Your task to perform on an android device: star an email in the gmail app Image 0: 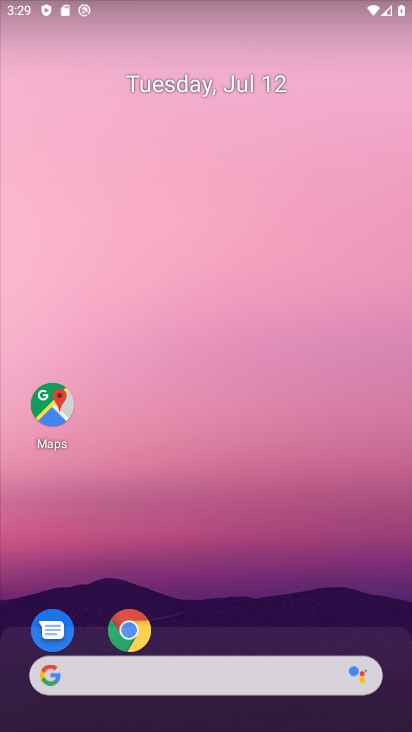
Step 0: drag from (218, 593) to (173, 117)
Your task to perform on an android device: star an email in the gmail app Image 1: 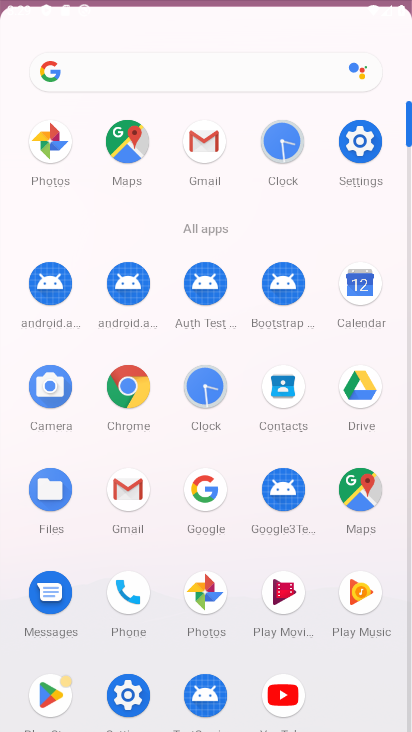
Step 1: drag from (295, 591) to (151, 20)
Your task to perform on an android device: star an email in the gmail app Image 2: 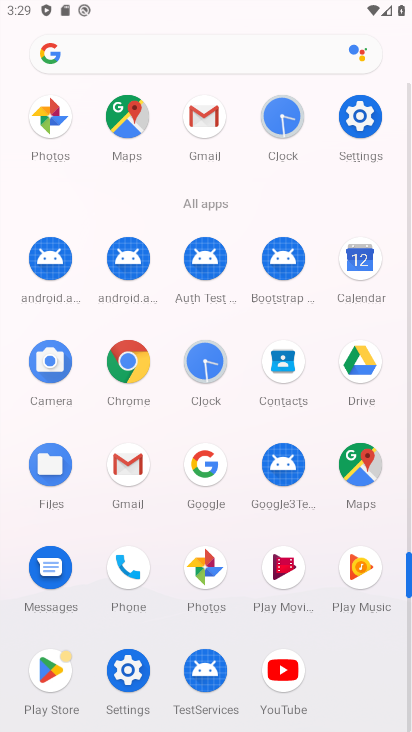
Step 2: click (110, 460)
Your task to perform on an android device: star an email in the gmail app Image 3: 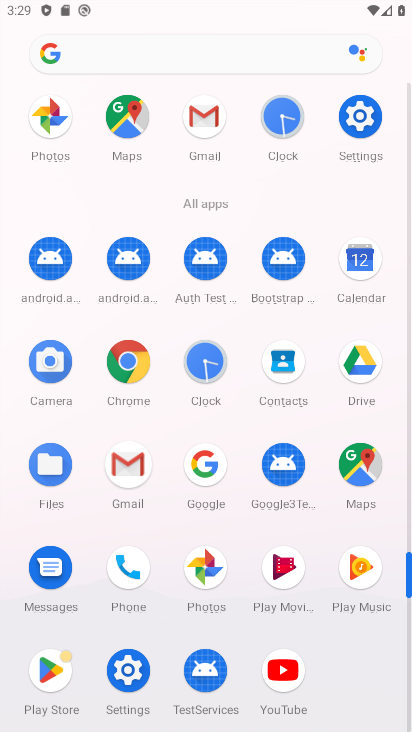
Step 3: click (118, 463)
Your task to perform on an android device: star an email in the gmail app Image 4: 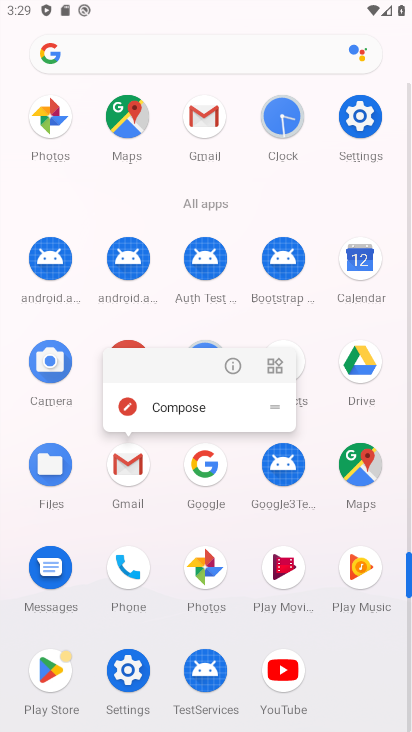
Step 4: click (124, 462)
Your task to perform on an android device: star an email in the gmail app Image 5: 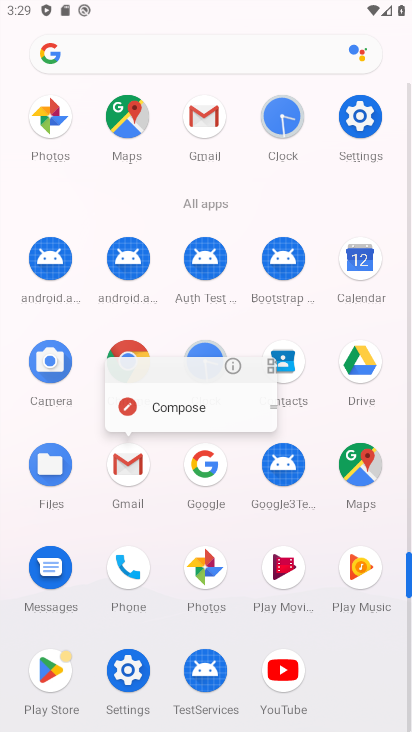
Step 5: click (124, 462)
Your task to perform on an android device: star an email in the gmail app Image 6: 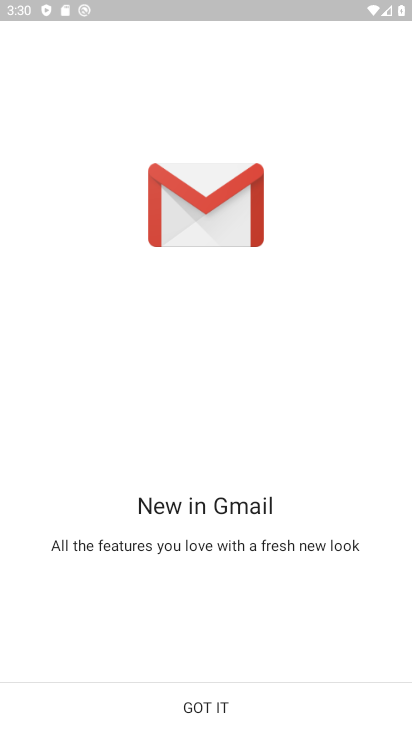
Step 6: click (215, 724)
Your task to perform on an android device: star an email in the gmail app Image 7: 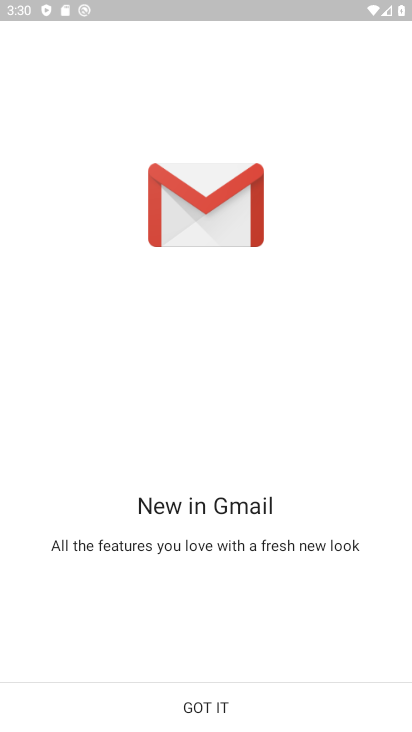
Step 7: click (219, 718)
Your task to perform on an android device: star an email in the gmail app Image 8: 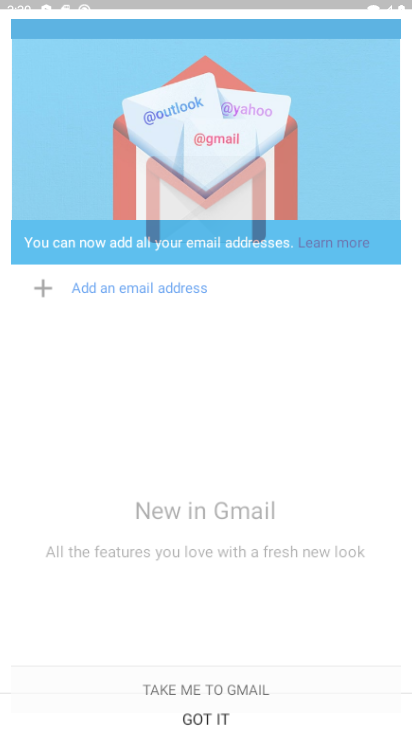
Step 8: click (219, 717)
Your task to perform on an android device: star an email in the gmail app Image 9: 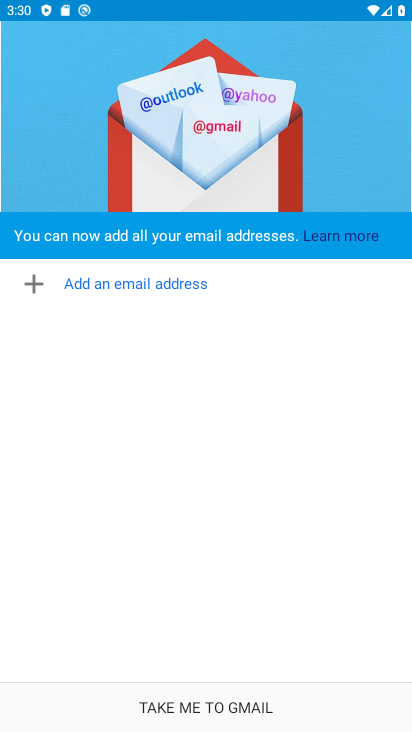
Step 9: click (226, 700)
Your task to perform on an android device: star an email in the gmail app Image 10: 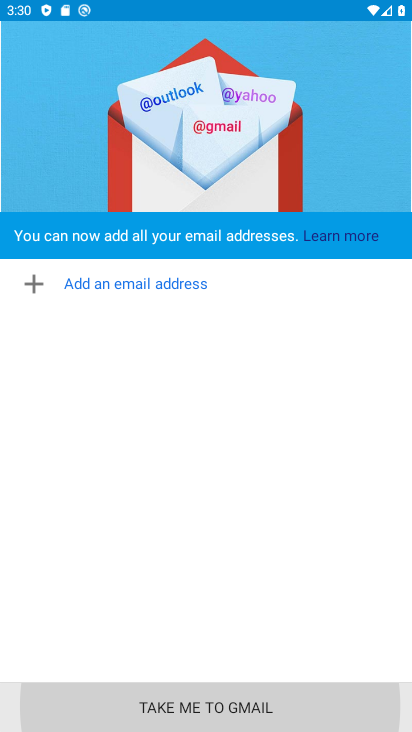
Step 10: click (226, 701)
Your task to perform on an android device: star an email in the gmail app Image 11: 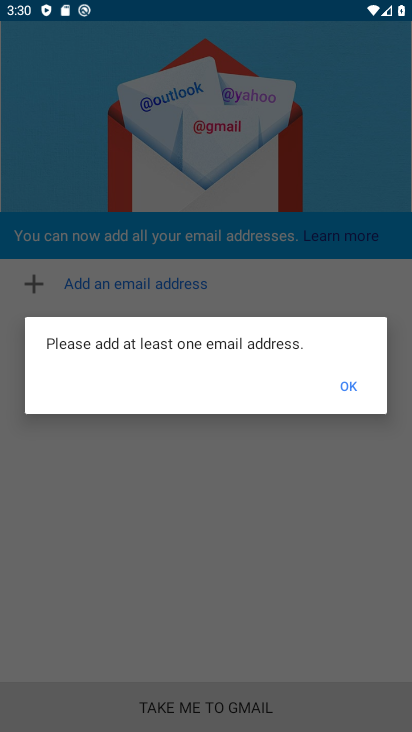
Step 11: click (214, 704)
Your task to perform on an android device: star an email in the gmail app Image 12: 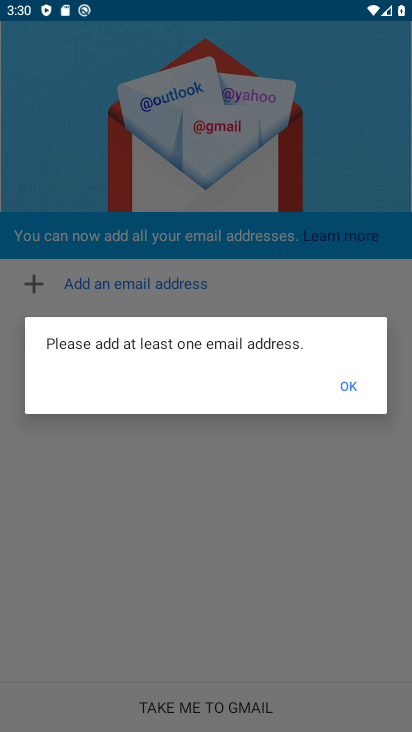
Step 12: click (214, 693)
Your task to perform on an android device: star an email in the gmail app Image 13: 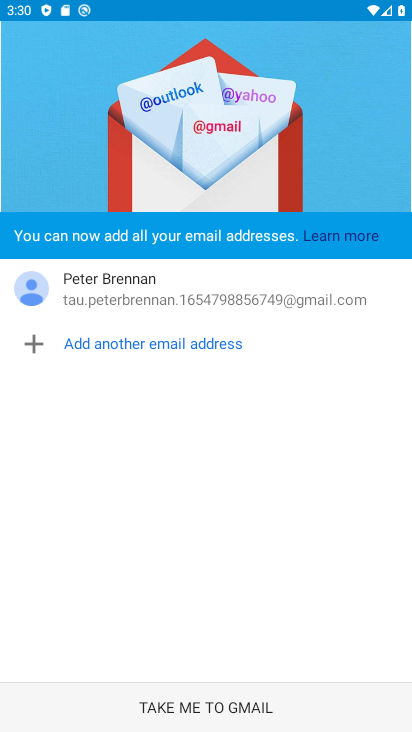
Step 13: click (190, 707)
Your task to perform on an android device: star an email in the gmail app Image 14: 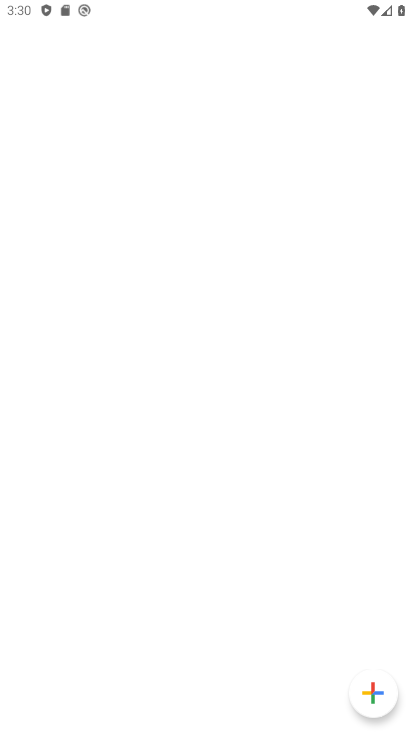
Step 14: click (208, 706)
Your task to perform on an android device: star an email in the gmail app Image 15: 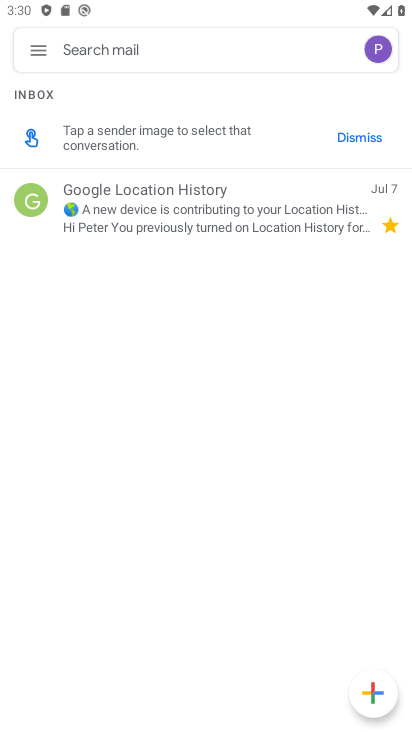
Step 15: click (210, 217)
Your task to perform on an android device: star an email in the gmail app Image 16: 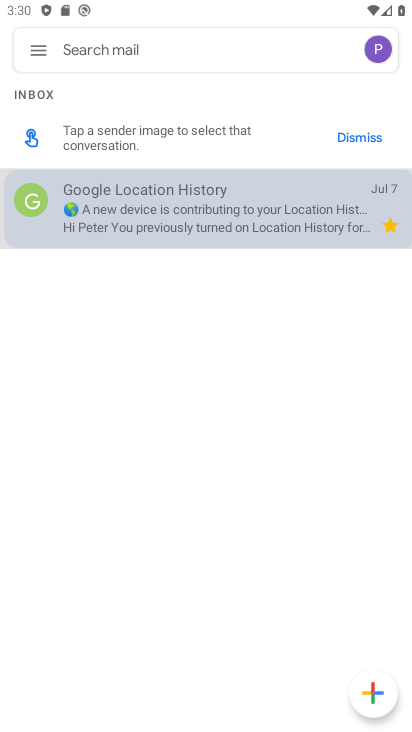
Step 16: click (210, 217)
Your task to perform on an android device: star an email in the gmail app Image 17: 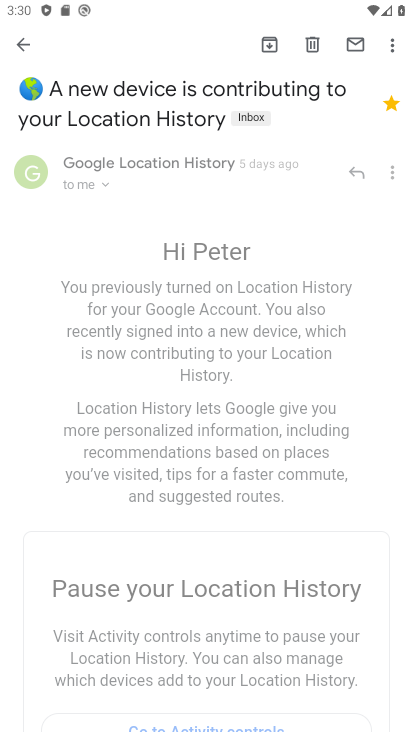
Step 17: click (17, 38)
Your task to perform on an android device: star an email in the gmail app Image 18: 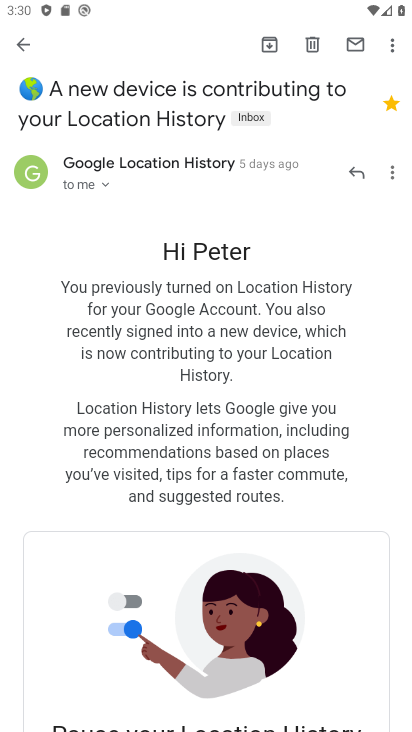
Step 18: click (18, 46)
Your task to perform on an android device: star an email in the gmail app Image 19: 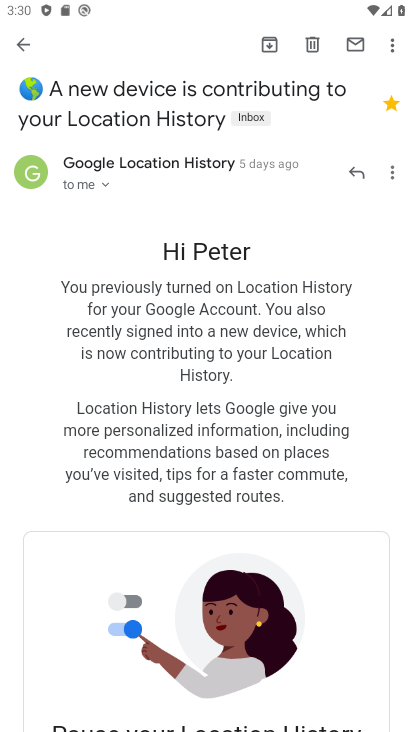
Step 19: click (18, 46)
Your task to perform on an android device: star an email in the gmail app Image 20: 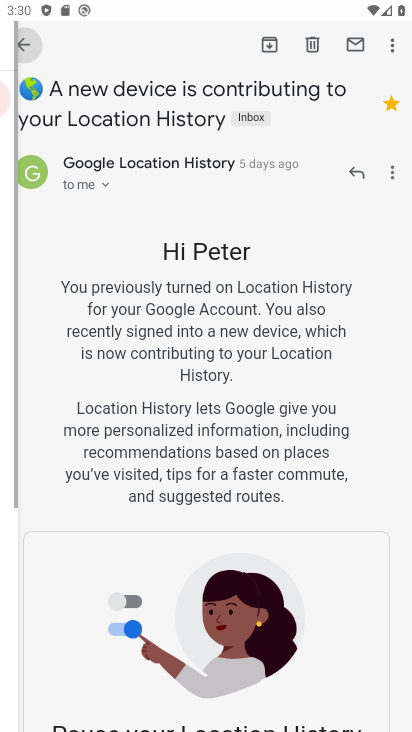
Step 20: click (18, 46)
Your task to perform on an android device: star an email in the gmail app Image 21: 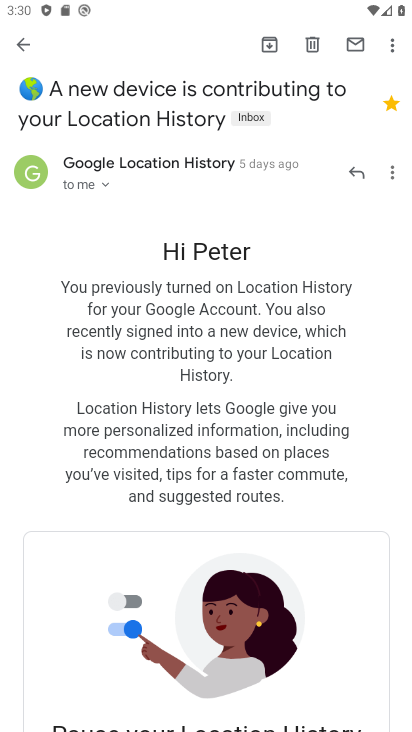
Step 21: click (18, 46)
Your task to perform on an android device: star an email in the gmail app Image 22: 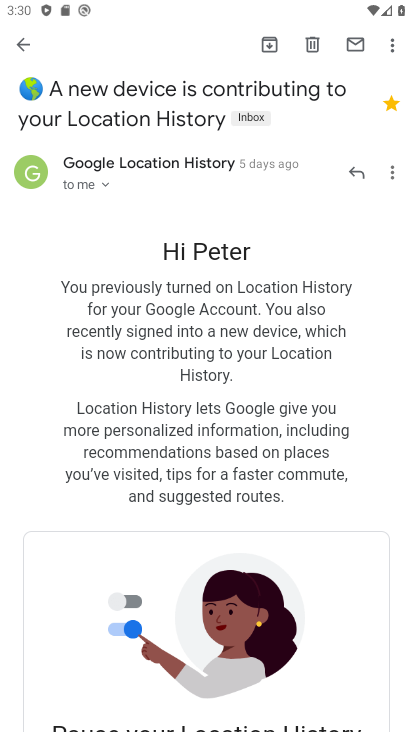
Step 22: click (18, 46)
Your task to perform on an android device: star an email in the gmail app Image 23: 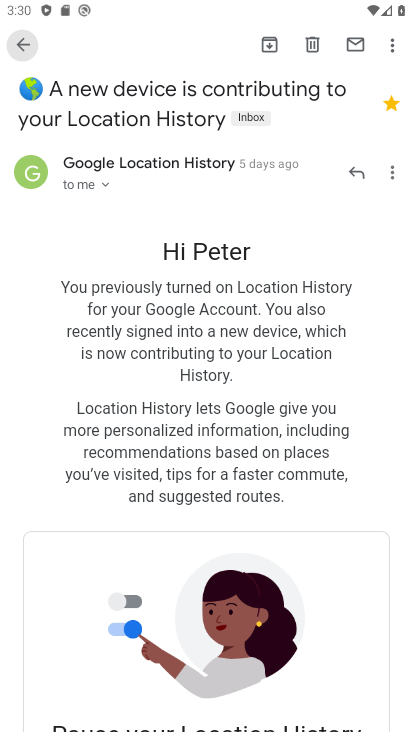
Step 23: click (18, 46)
Your task to perform on an android device: star an email in the gmail app Image 24: 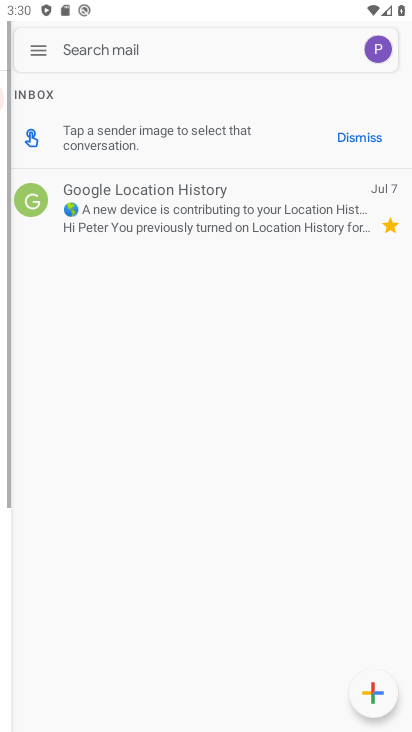
Step 24: click (17, 45)
Your task to perform on an android device: star an email in the gmail app Image 25: 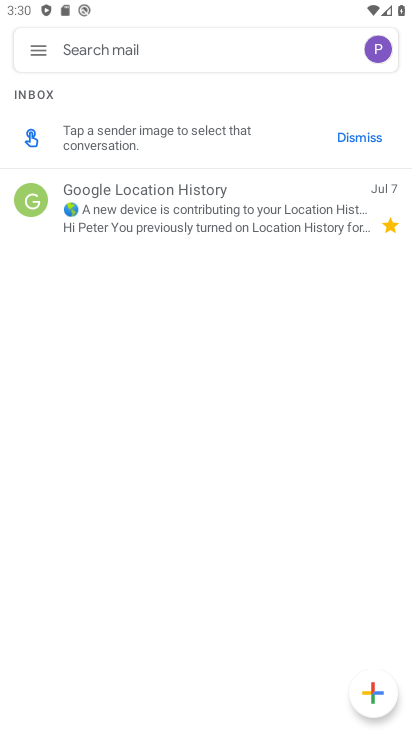
Step 25: click (42, 52)
Your task to perform on an android device: star an email in the gmail app Image 26: 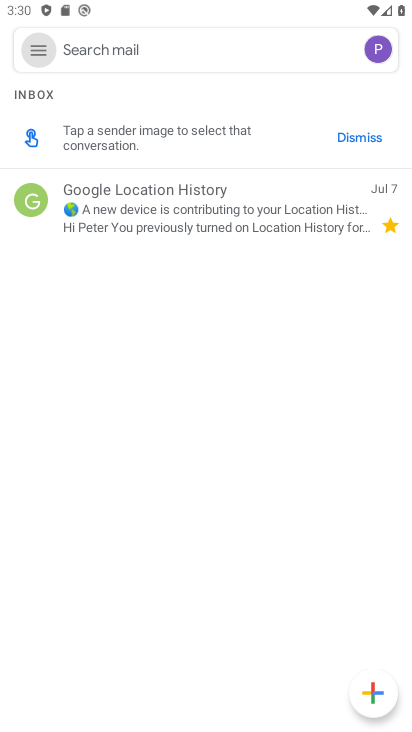
Step 26: click (42, 52)
Your task to perform on an android device: star an email in the gmail app Image 27: 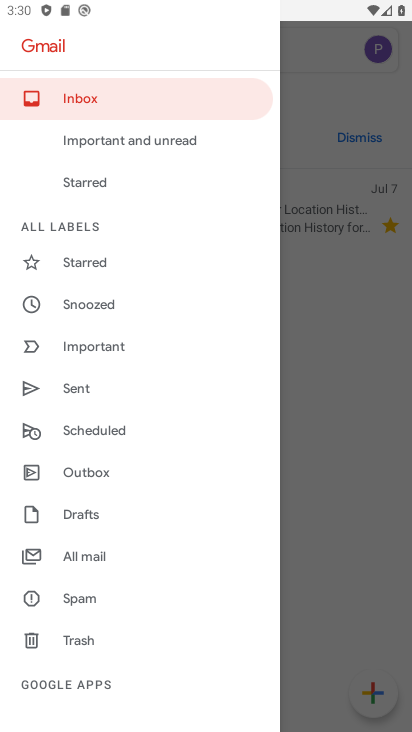
Step 27: click (97, 563)
Your task to perform on an android device: star an email in the gmail app Image 28: 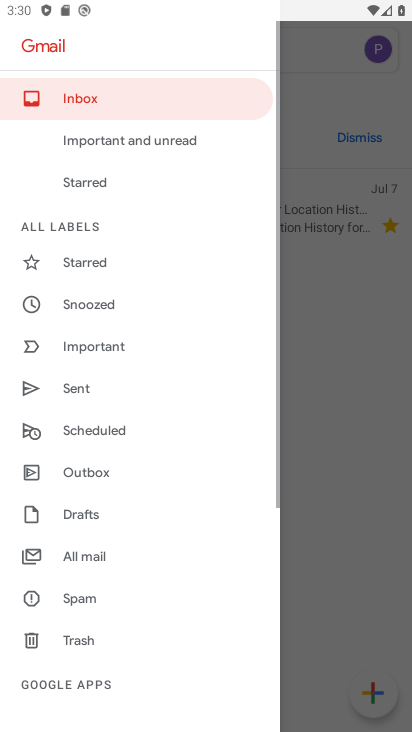
Step 28: click (93, 551)
Your task to perform on an android device: star an email in the gmail app Image 29: 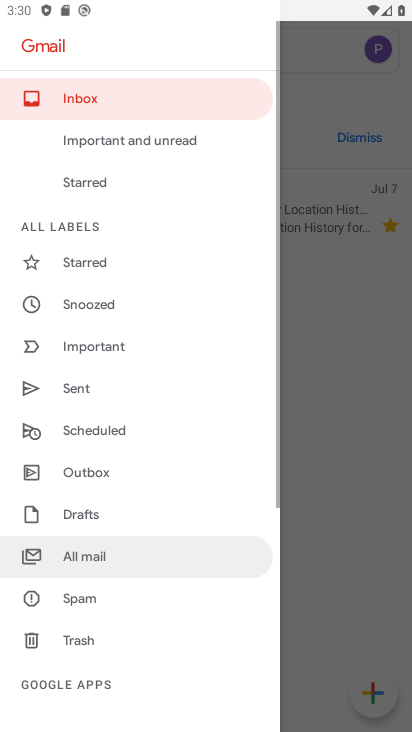
Step 29: click (93, 551)
Your task to perform on an android device: star an email in the gmail app Image 30: 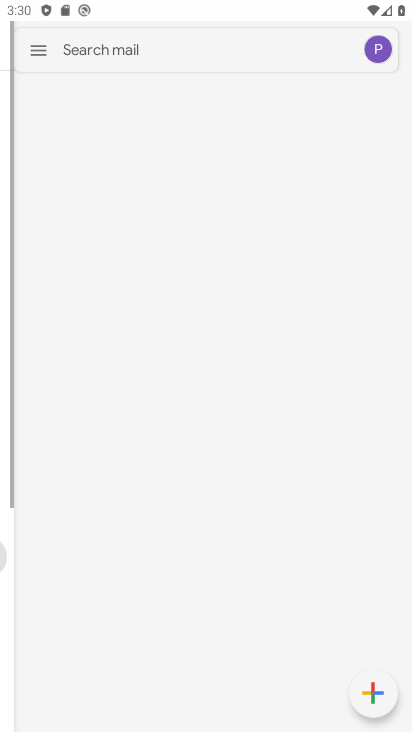
Step 30: click (93, 551)
Your task to perform on an android device: star an email in the gmail app Image 31: 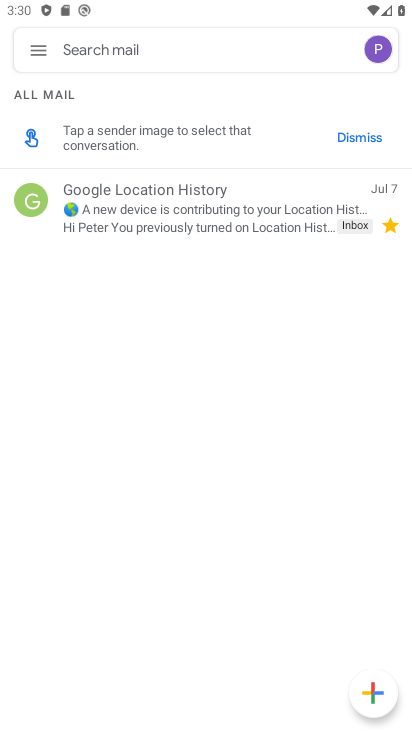
Step 31: task complete